Your task to perform on an android device: turn off sleep mode Image 0: 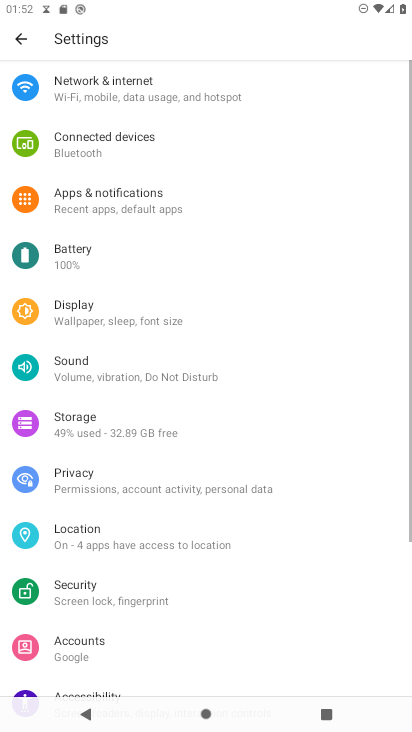
Step 0: click (129, 323)
Your task to perform on an android device: turn off sleep mode Image 1: 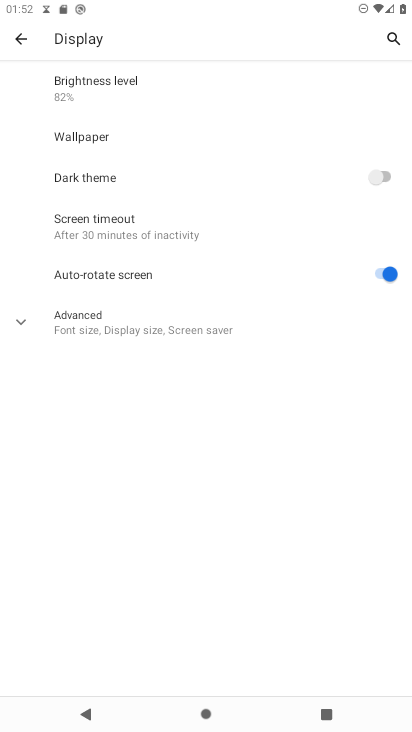
Step 1: click (85, 326)
Your task to perform on an android device: turn off sleep mode Image 2: 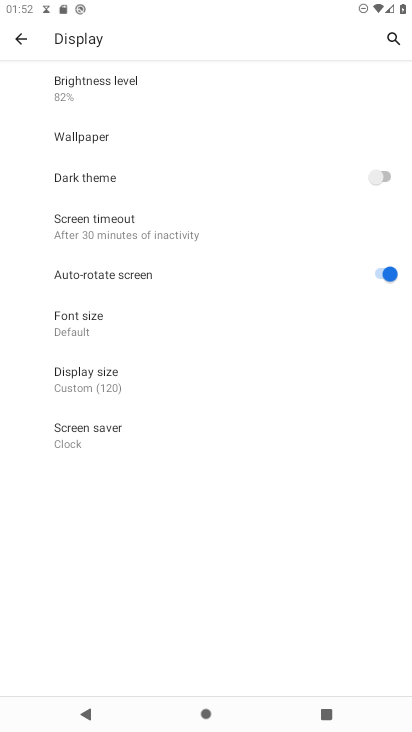
Step 2: task complete